Your task to perform on an android device: set the stopwatch Image 0: 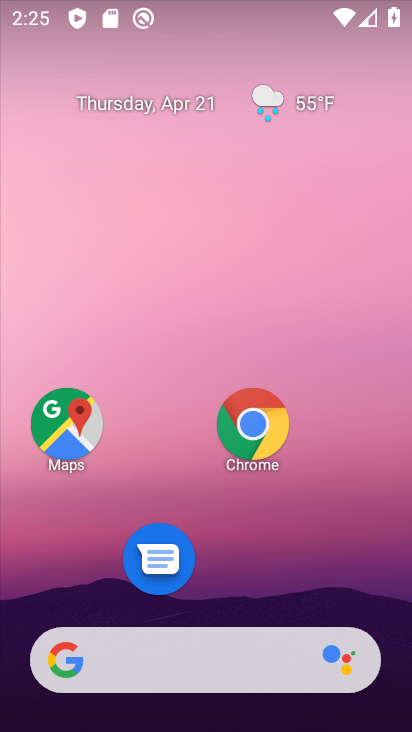
Step 0: drag from (276, 538) to (262, 3)
Your task to perform on an android device: set the stopwatch Image 1: 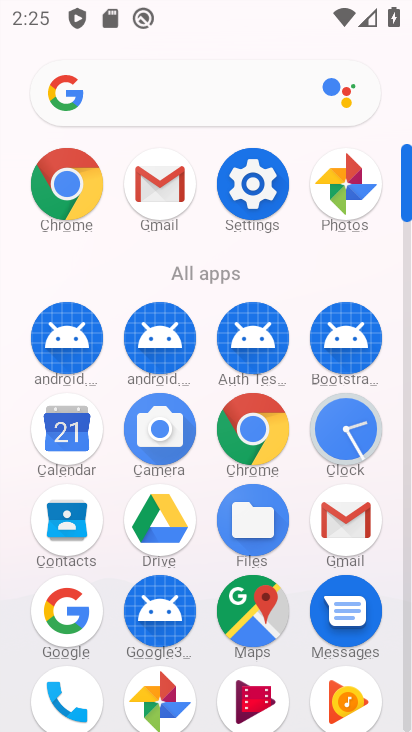
Step 1: click (346, 433)
Your task to perform on an android device: set the stopwatch Image 2: 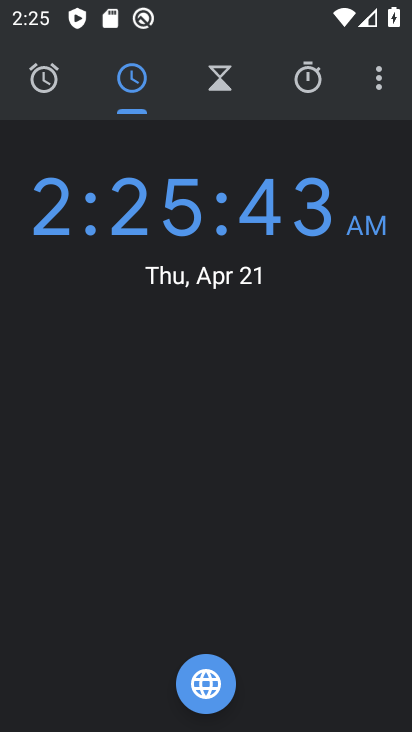
Step 2: click (309, 79)
Your task to perform on an android device: set the stopwatch Image 3: 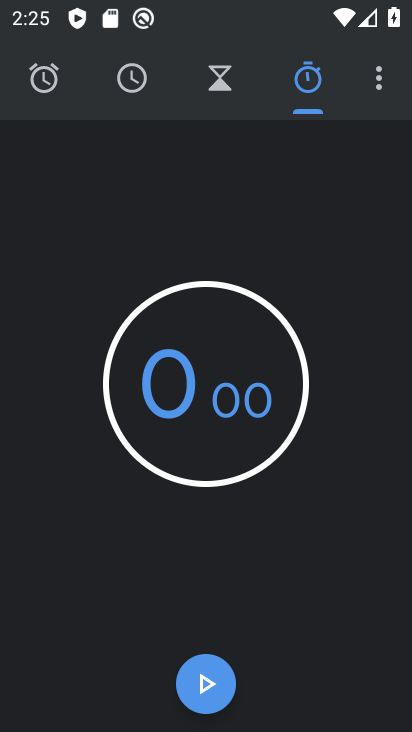
Step 3: click (211, 680)
Your task to perform on an android device: set the stopwatch Image 4: 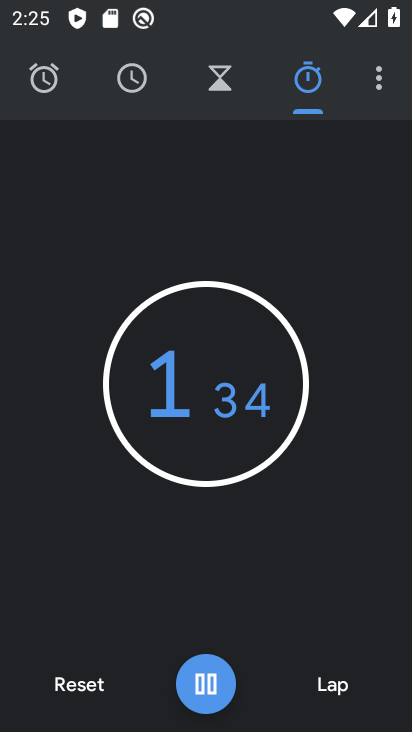
Step 4: click (210, 680)
Your task to perform on an android device: set the stopwatch Image 5: 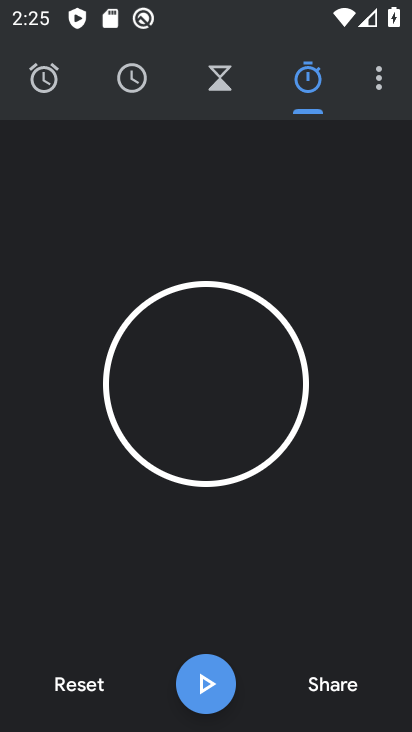
Step 5: task complete